Your task to perform on an android device: turn on airplane mode Image 0: 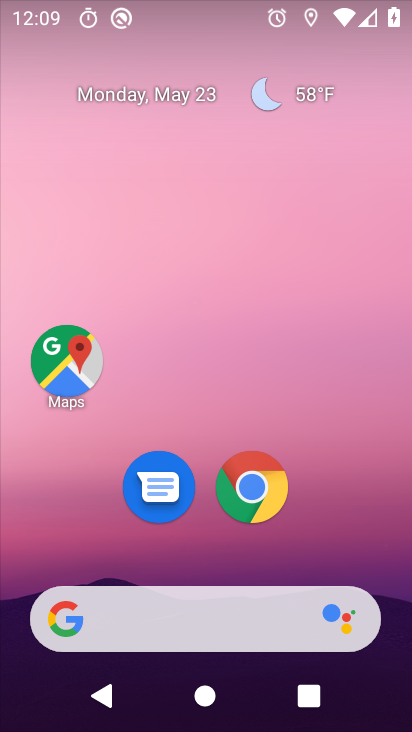
Step 0: drag from (346, 453) to (365, 20)
Your task to perform on an android device: turn on airplane mode Image 1: 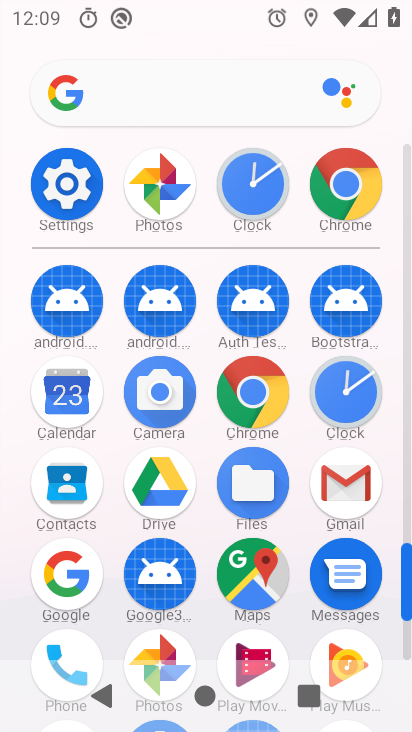
Step 1: click (66, 197)
Your task to perform on an android device: turn on airplane mode Image 2: 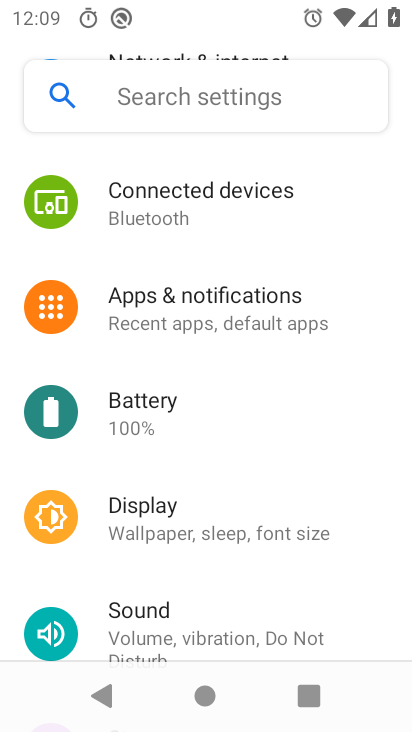
Step 2: drag from (250, 248) to (269, 589)
Your task to perform on an android device: turn on airplane mode Image 3: 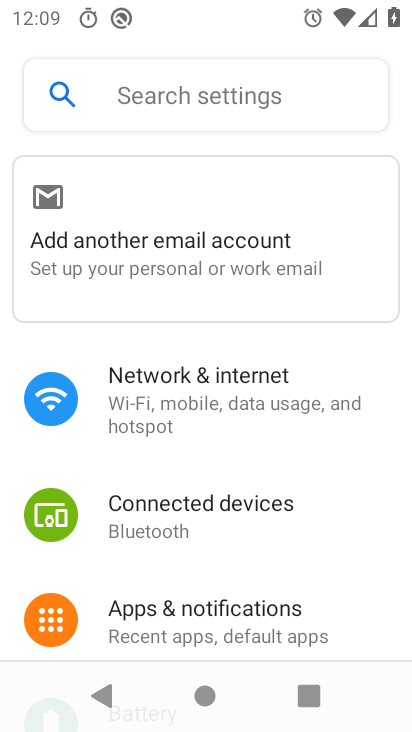
Step 3: click (255, 388)
Your task to perform on an android device: turn on airplane mode Image 4: 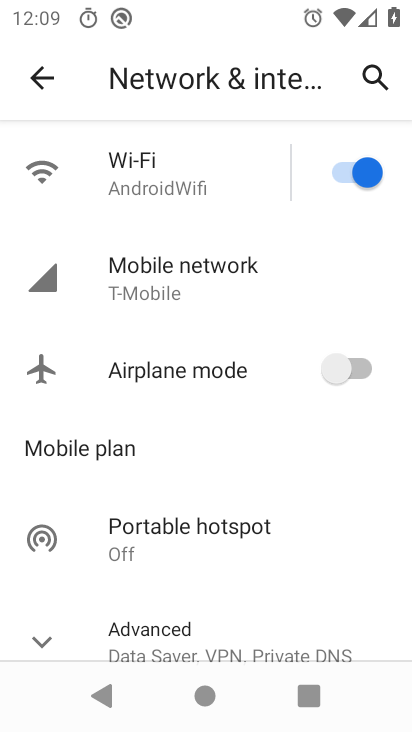
Step 4: click (363, 372)
Your task to perform on an android device: turn on airplane mode Image 5: 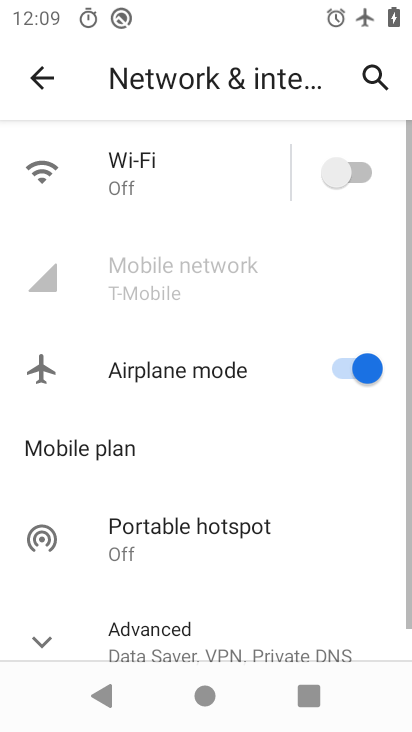
Step 5: task complete